Your task to perform on an android device: Open calendar and show me the third week of next month Image 0: 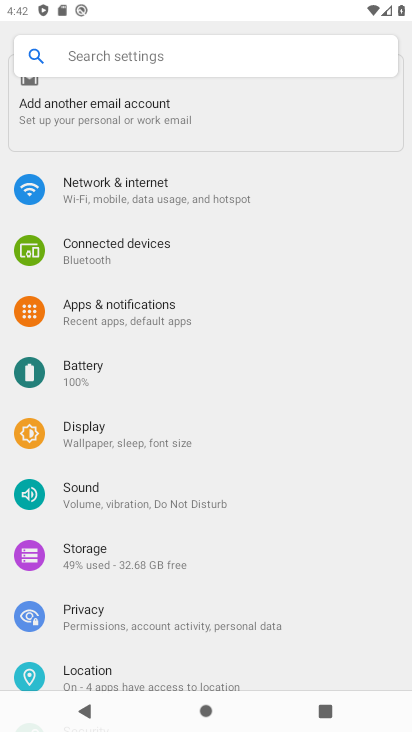
Step 0: press home button
Your task to perform on an android device: Open calendar and show me the third week of next month Image 1: 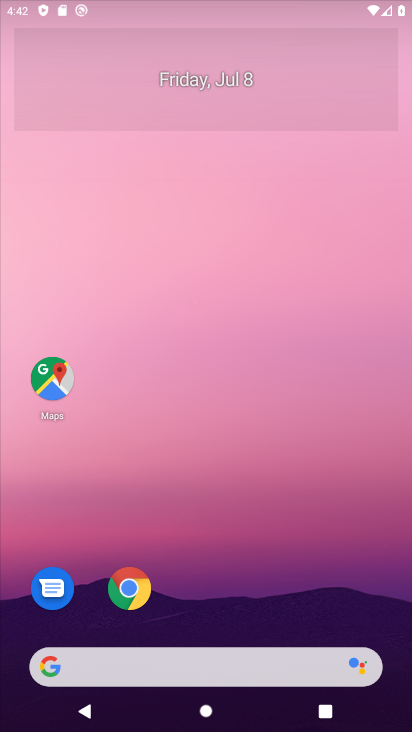
Step 1: drag from (198, 512) to (281, 40)
Your task to perform on an android device: Open calendar and show me the third week of next month Image 2: 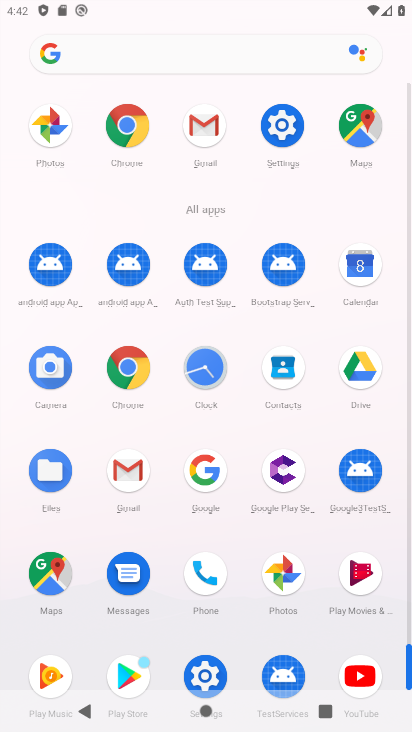
Step 2: click (375, 268)
Your task to perform on an android device: Open calendar and show me the third week of next month Image 3: 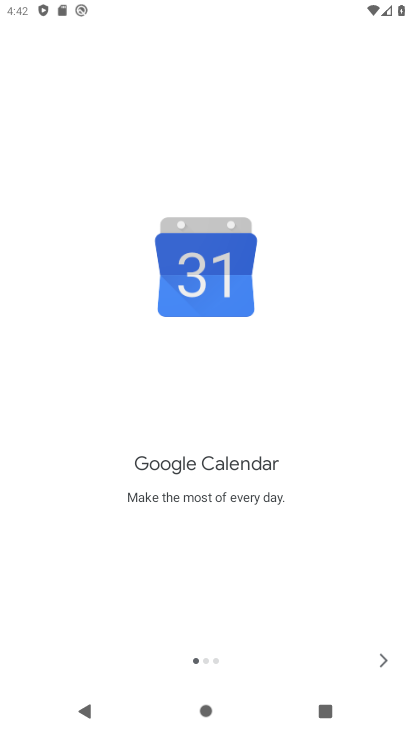
Step 3: click (377, 656)
Your task to perform on an android device: Open calendar and show me the third week of next month Image 4: 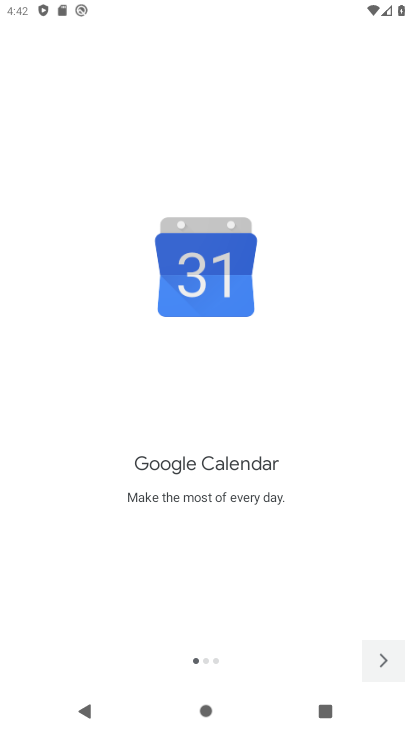
Step 4: click (378, 657)
Your task to perform on an android device: Open calendar and show me the third week of next month Image 5: 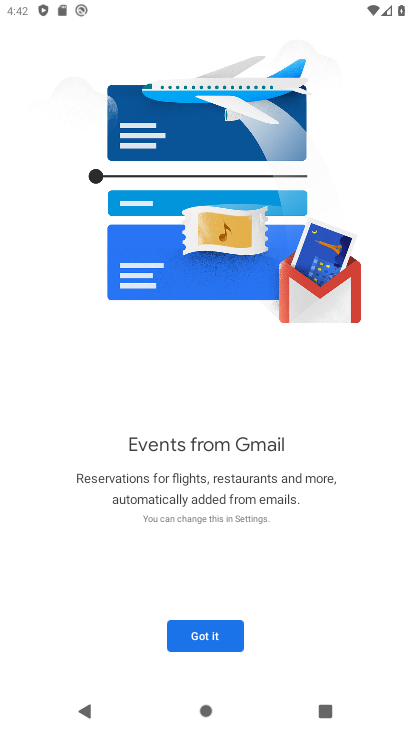
Step 5: click (187, 638)
Your task to perform on an android device: Open calendar and show me the third week of next month Image 6: 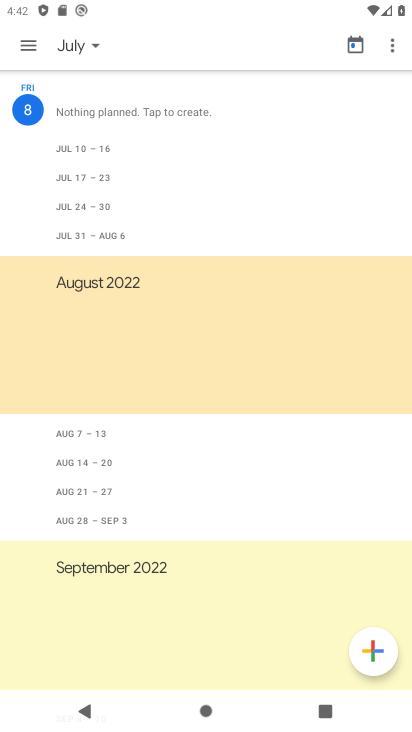
Step 6: click (38, 48)
Your task to perform on an android device: Open calendar and show me the third week of next month Image 7: 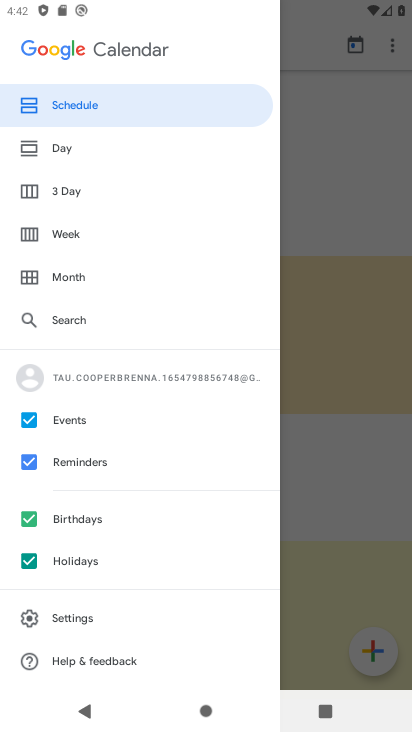
Step 7: click (71, 282)
Your task to perform on an android device: Open calendar and show me the third week of next month Image 8: 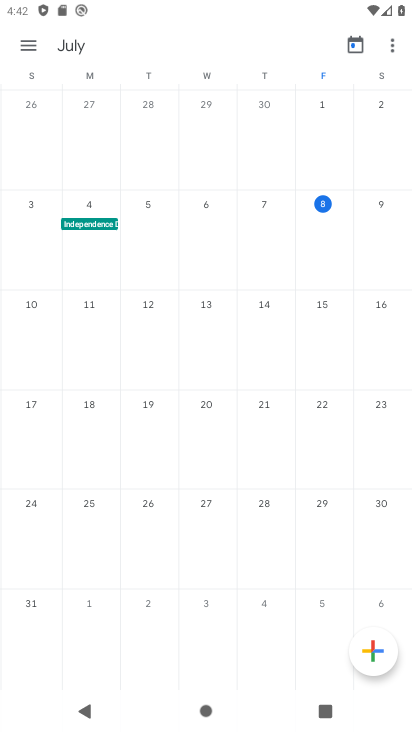
Step 8: task complete